Your task to perform on an android device: turn off javascript in the chrome app Image 0: 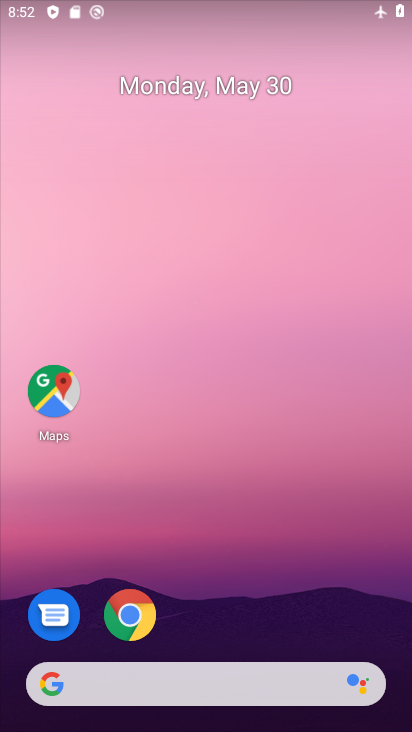
Step 0: click (139, 608)
Your task to perform on an android device: turn off javascript in the chrome app Image 1: 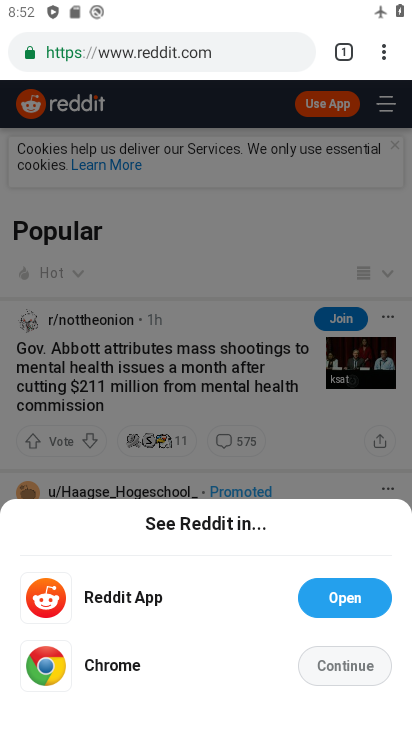
Step 1: click (390, 62)
Your task to perform on an android device: turn off javascript in the chrome app Image 2: 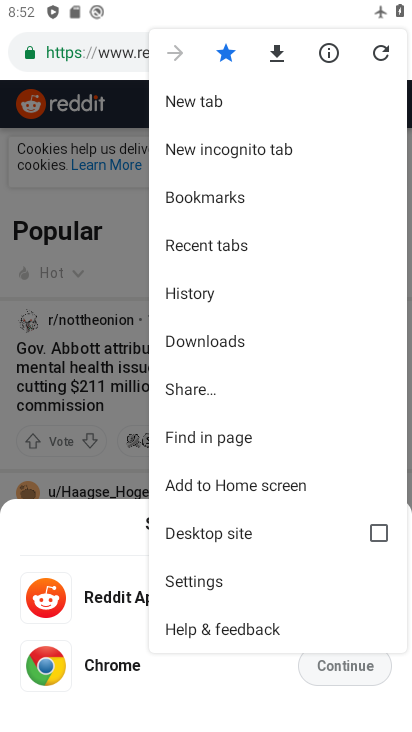
Step 2: click (219, 574)
Your task to perform on an android device: turn off javascript in the chrome app Image 3: 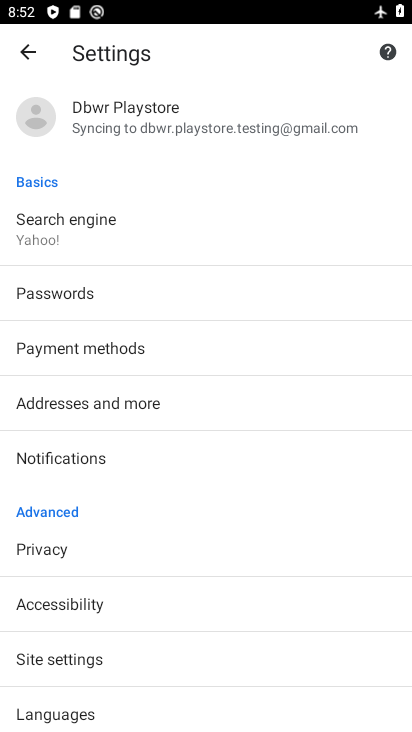
Step 3: click (73, 661)
Your task to perform on an android device: turn off javascript in the chrome app Image 4: 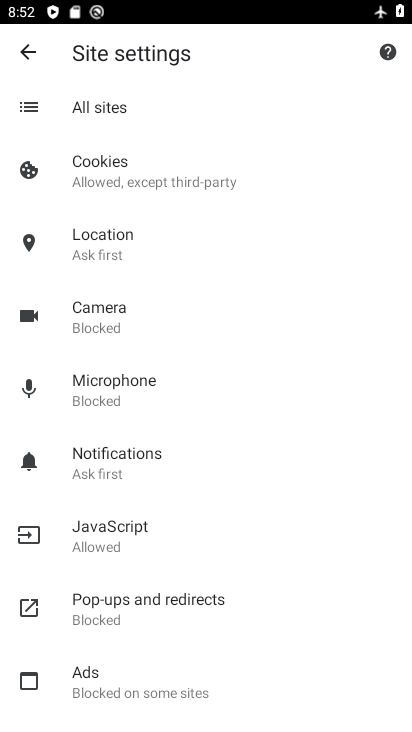
Step 4: click (111, 534)
Your task to perform on an android device: turn off javascript in the chrome app Image 5: 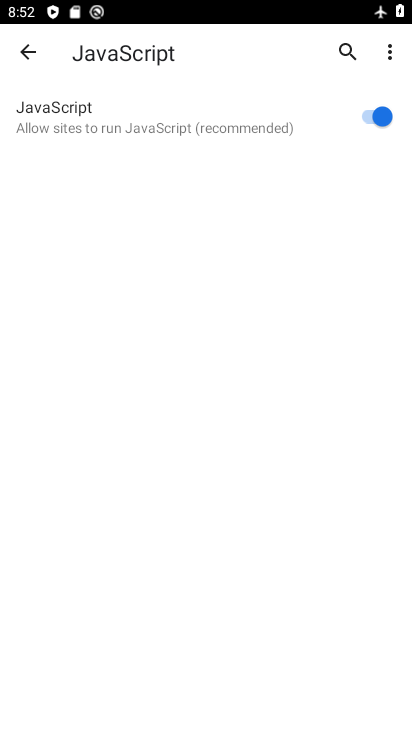
Step 5: click (372, 112)
Your task to perform on an android device: turn off javascript in the chrome app Image 6: 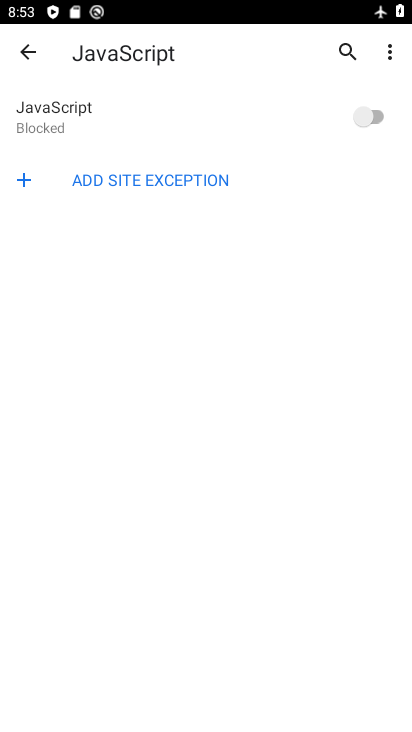
Step 6: task complete